Your task to perform on an android device: Open Yahoo.com Image 0: 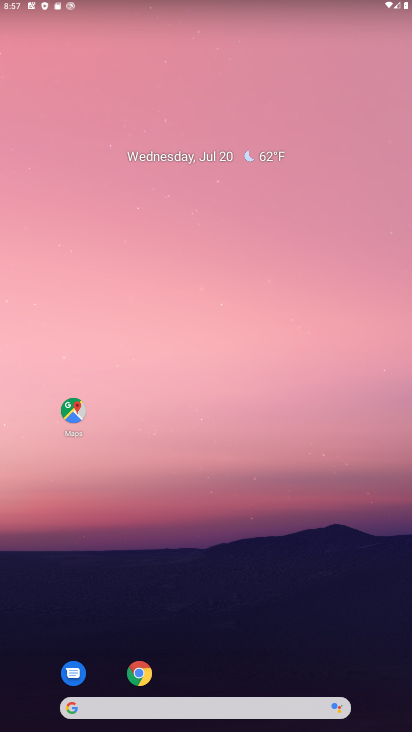
Step 0: click (141, 673)
Your task to perform on an android device: Open Yahoo.com Image 1: 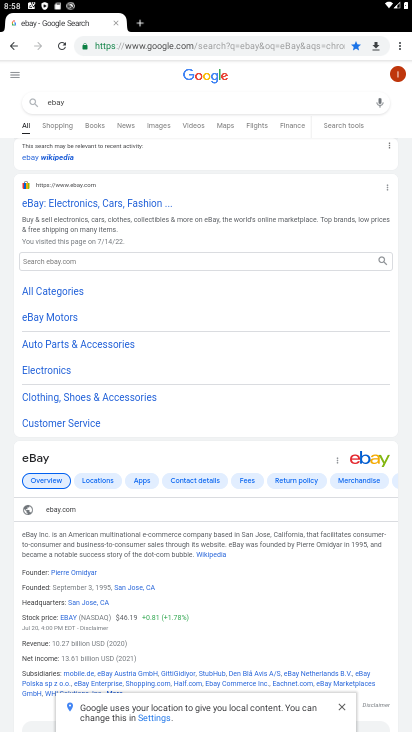
Step 1: click (326, 44)
Your task to perform on an android device: Open Yahoo.com Image 2: 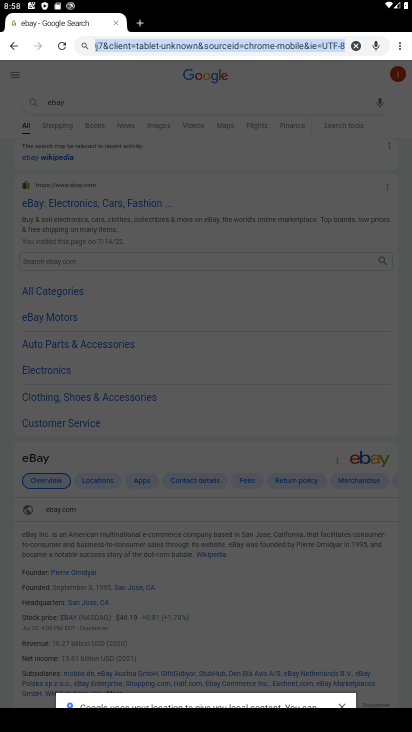
Step 2: click (354, 45)
Your task to perform on an android device: Open Yahoo.com Image 3: 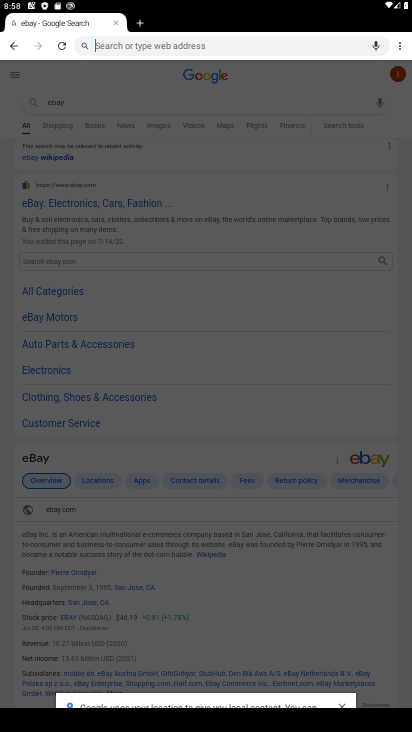
Step 3: type "Yahoo.com"
Your task to perform on an android device: Open Yahoo.com Image 4: 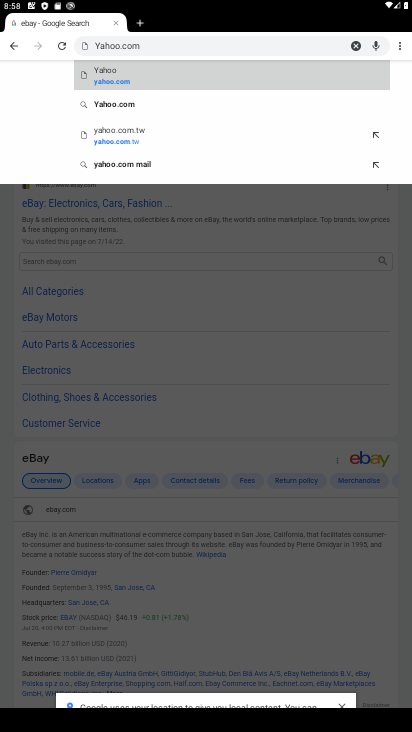
Step 4: click (121, 106)
Your task to perform on an android device: Open Yahoo.com Image 5: 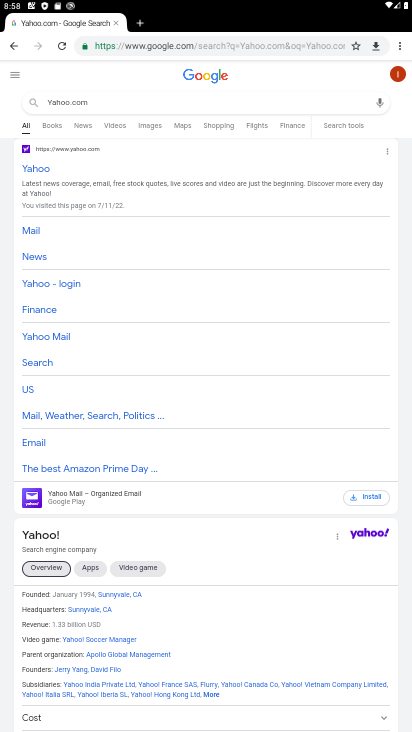
Step 5: task complete